Your task to perform on an android device: delete the emails in spam in the gmail app Image 0: 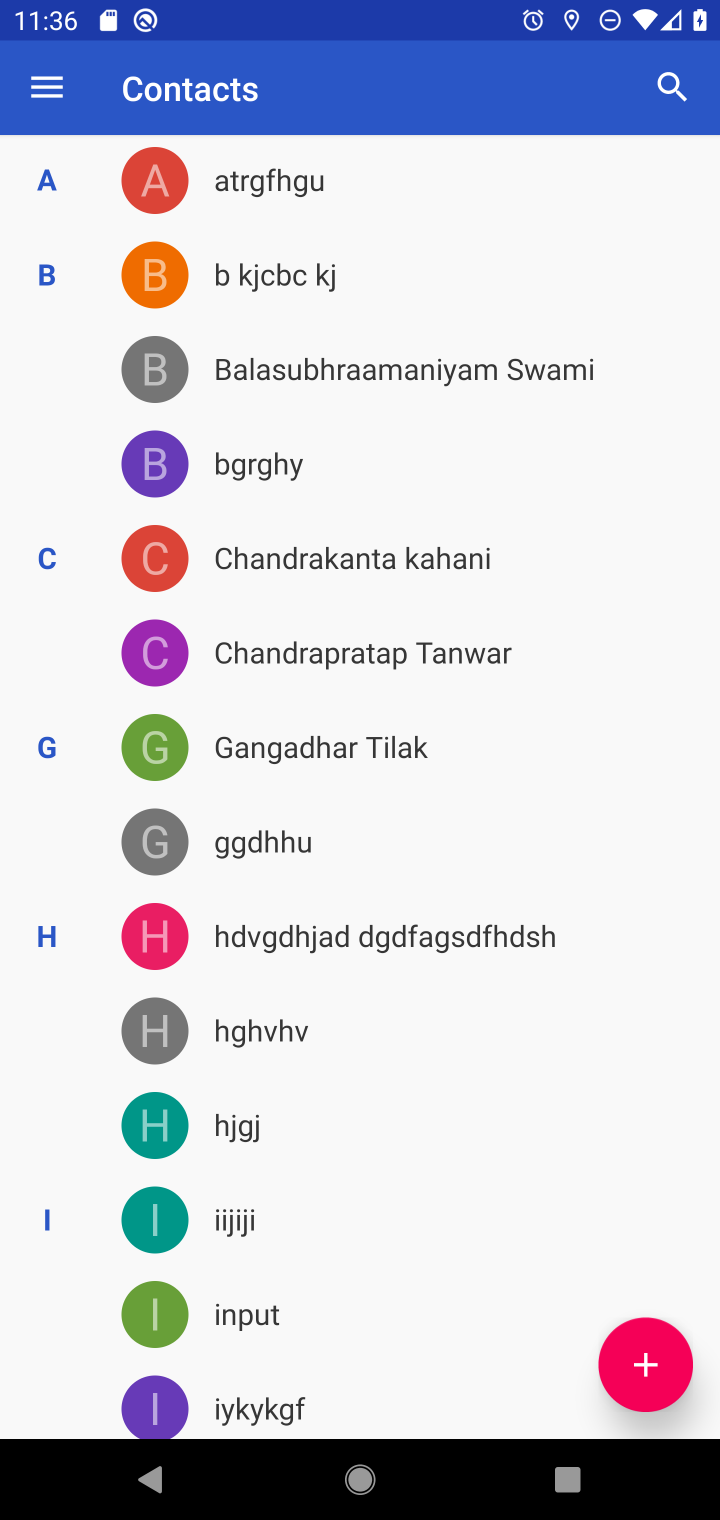
Step 0: press home button
Your task to perform on an android device: delete the emails in spam in the gmail app Image 1: 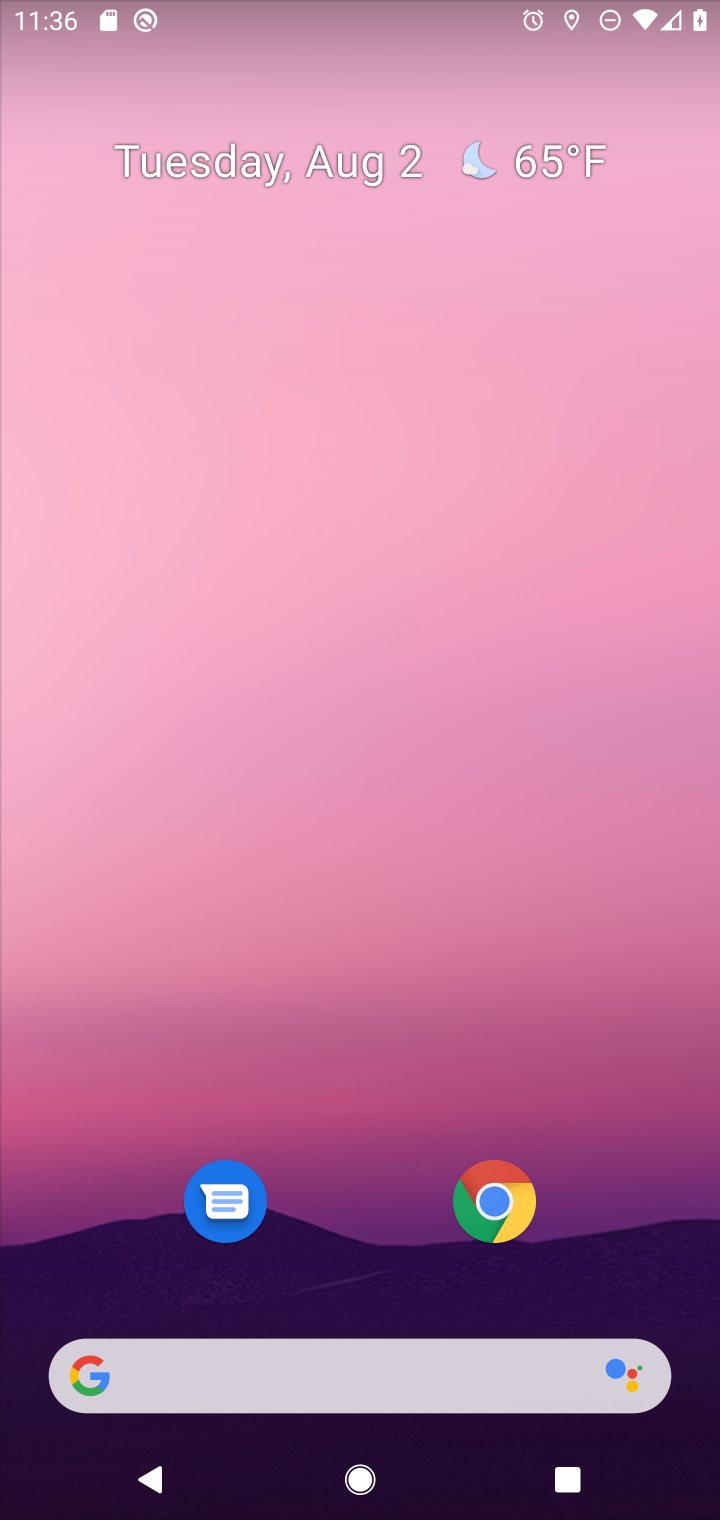
Step 1: drag from (419, 1279) to (326, 157)
Your task to perform on an android device: delete the emails in spam in the gmail app Image 2: 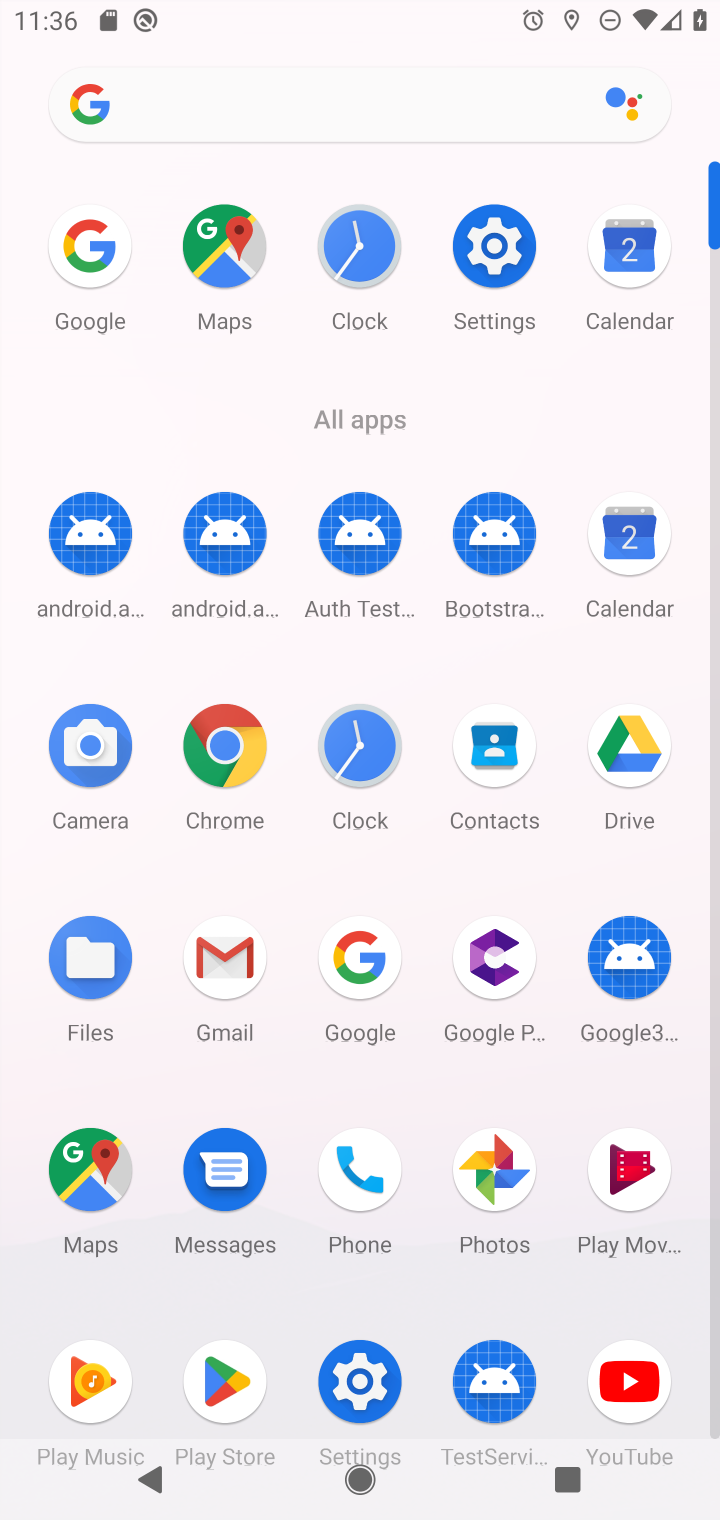
Step 2: click (244, 980)
Your task to perform on an android device: delete the emails in spam in the gmail app Image 3: 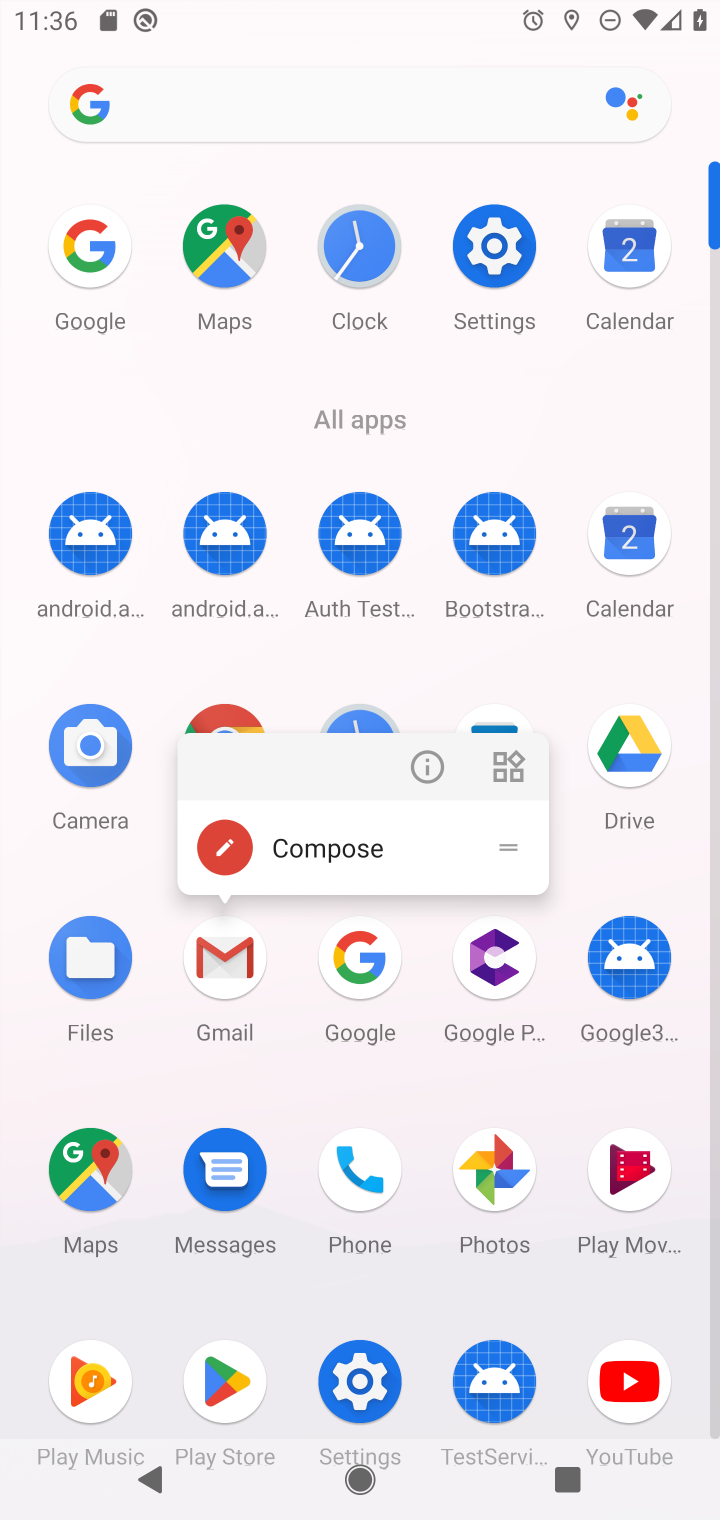
Step 3: click (222, 938)
Your task to perform on an android device: delete the emails in spam in the gmail app Image 4: 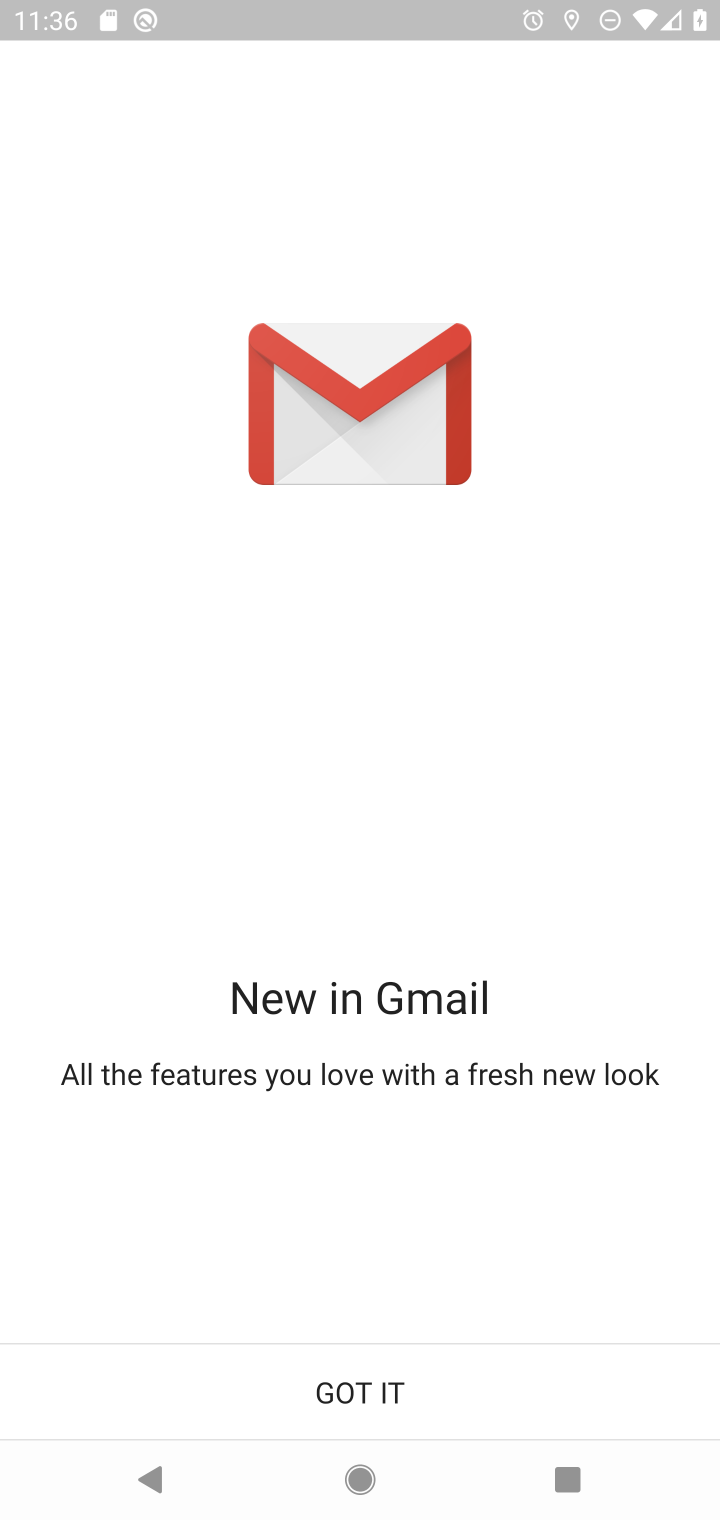
Step 4: click (553, 1379)
Your task to perform on an android device: delete the emails in spam in the gmail app Image 5: 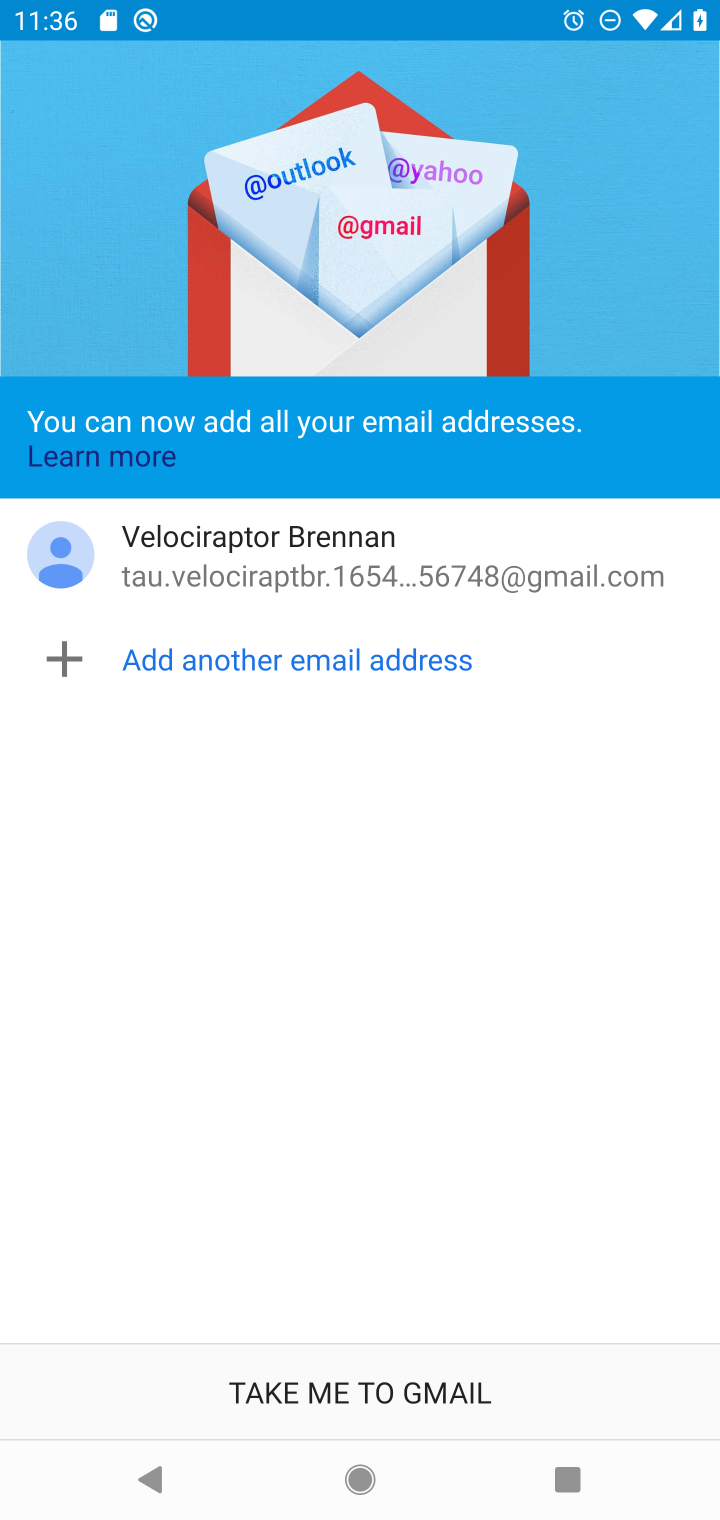
Step 5: click (284, 1393)
Your task to perform on an android device: delete the emails in spam in the gmail app Image 6: 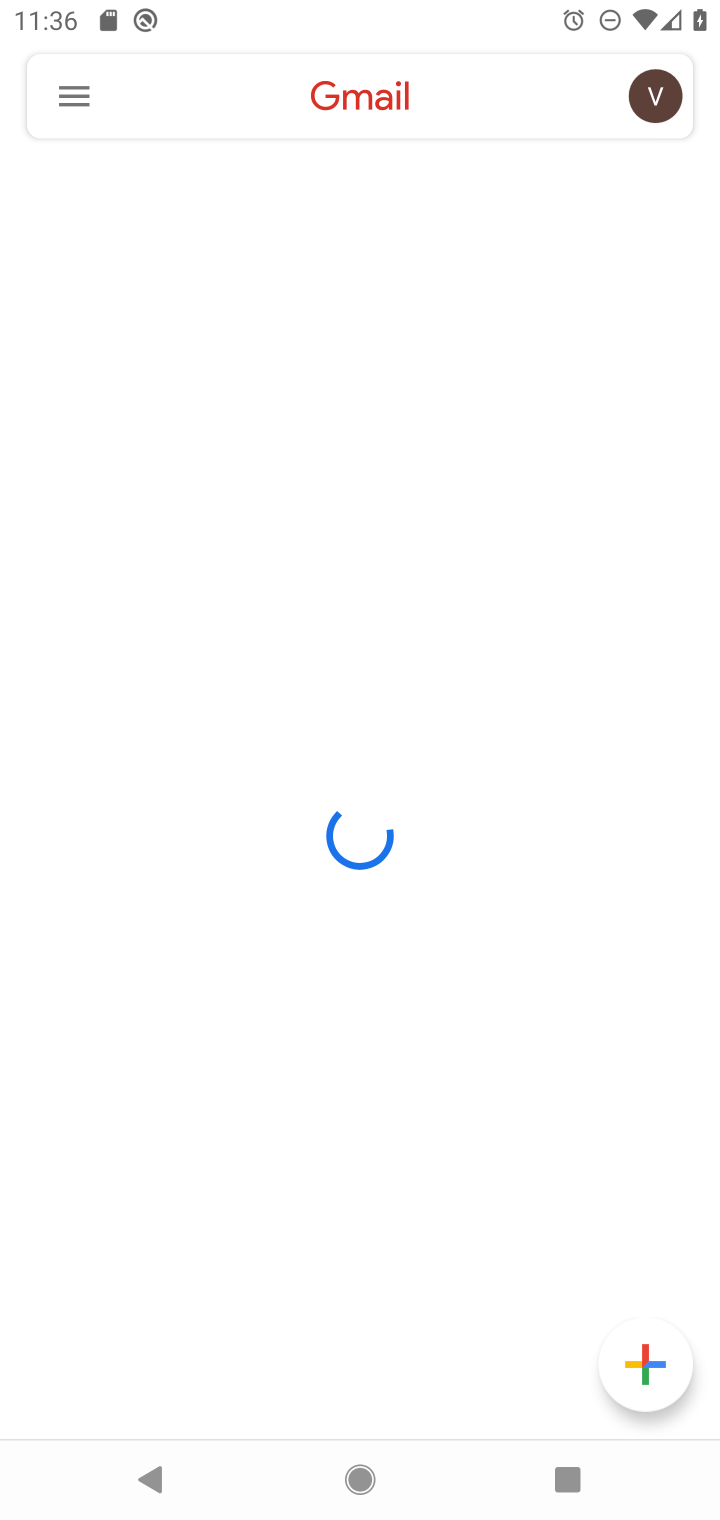
Step 6: click (35, 105)
Your task to perform on an android device: delete the emails in spam in the gmail app Image 7: 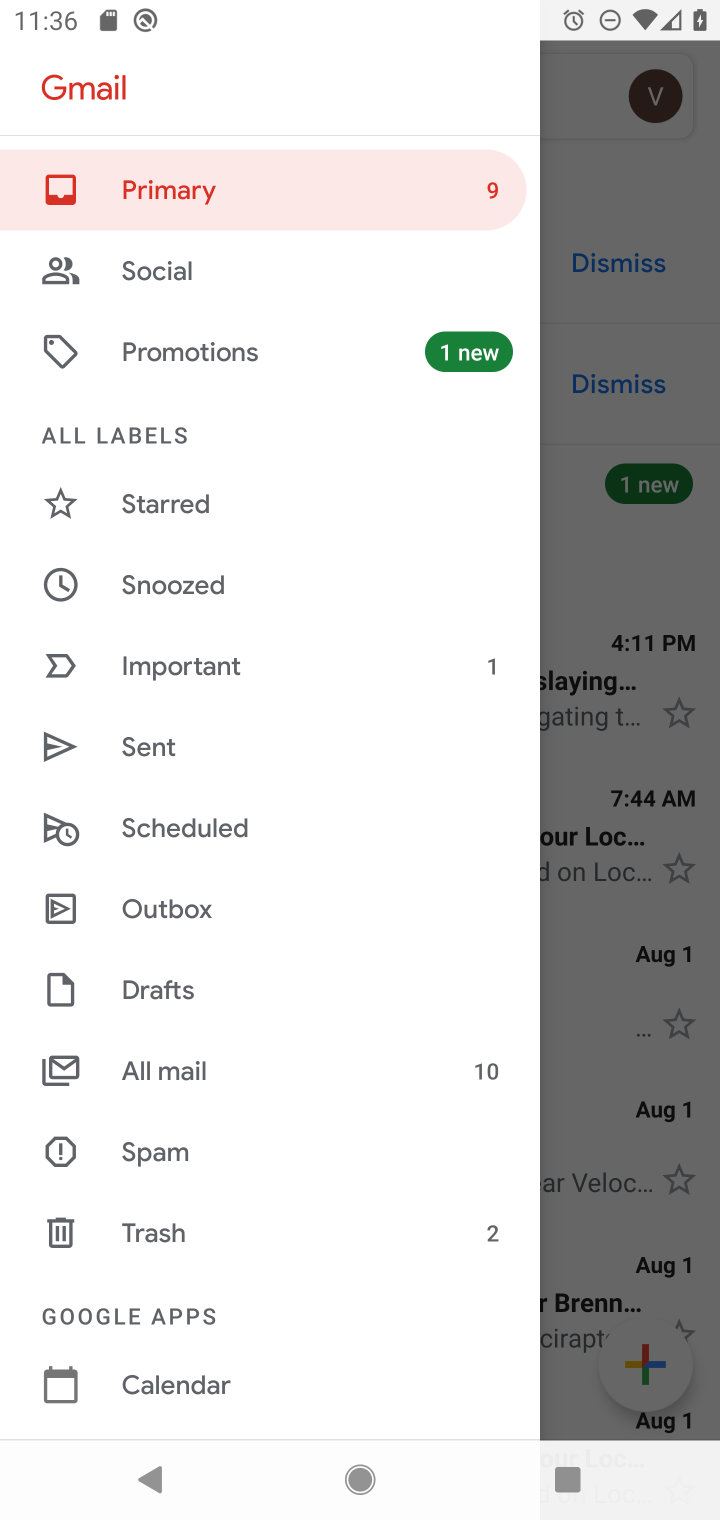
Step 7: click (161, 1150)
Your task to perform on an android device: delete the emails in spam in the gmail app Image 8: 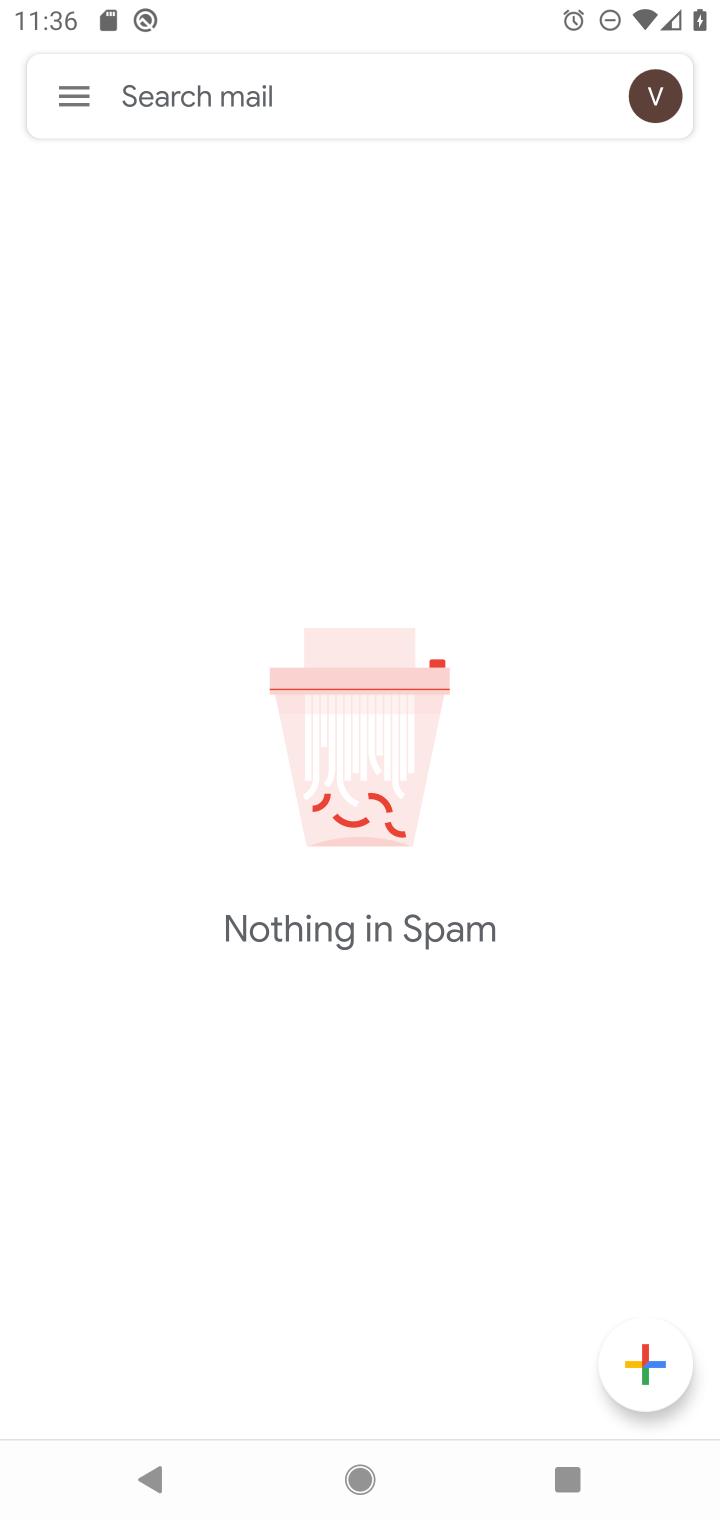
Step 8: task complete